Your task to perform on an android device: show emergency info Image 0: 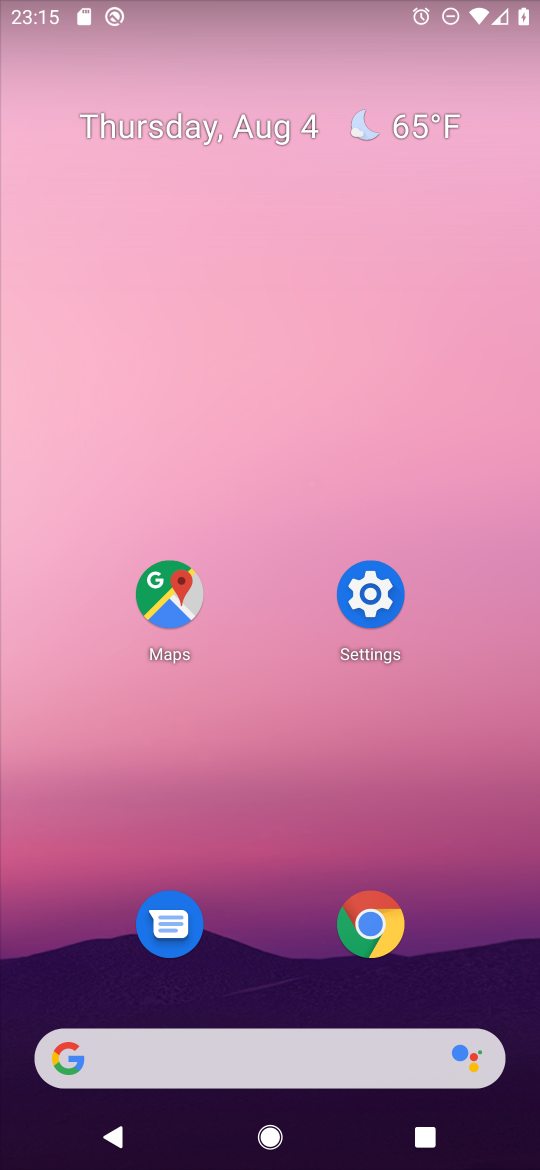
Step 0: press home button
Your task to perform on an android device: show emergency info Image 1: 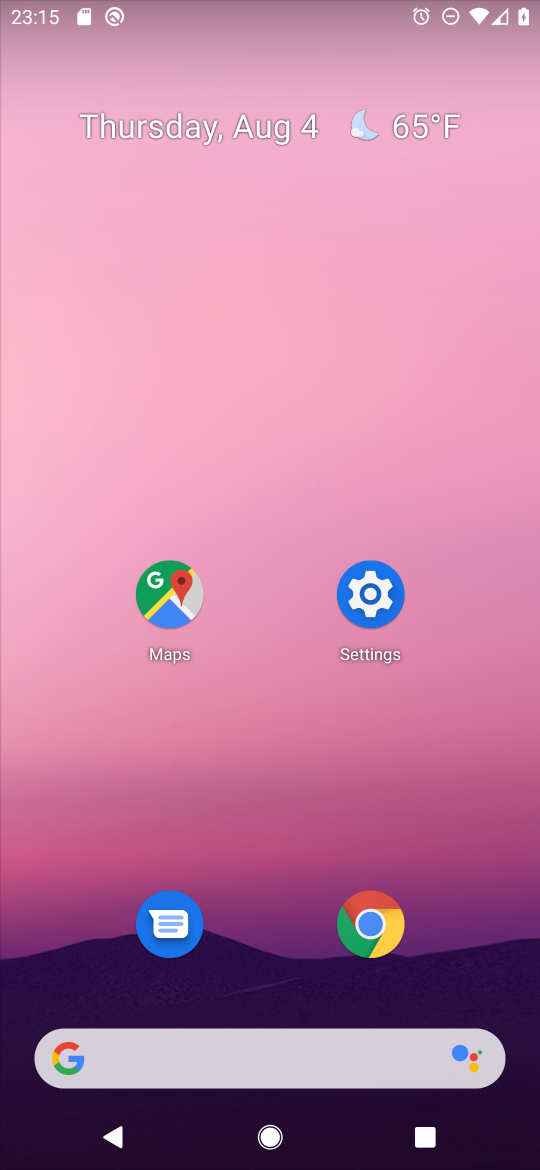
Step 1: click (373, 598)
Your task to perform on an android device: show emergency info Image 2: 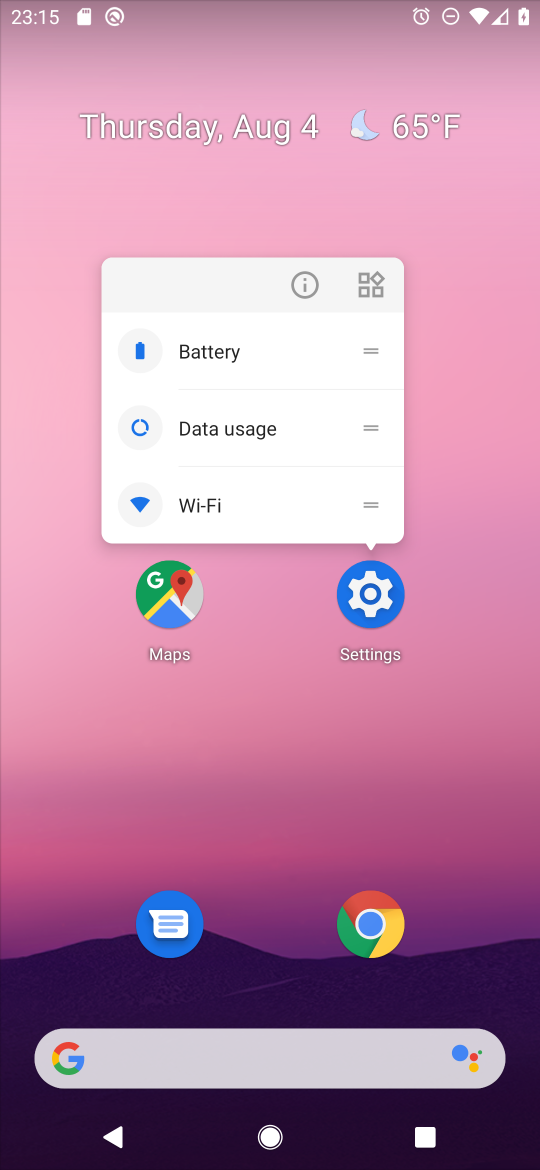
Step 2: click (373, 597)
Your task to perform on an android device: show emergency info Image 3: 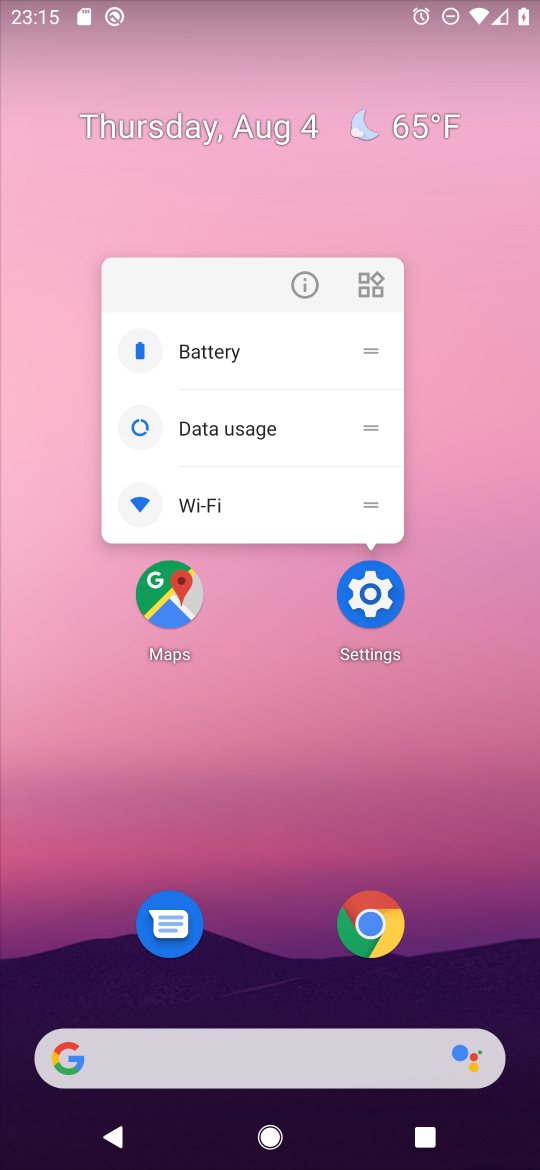
Step 3: click (373, 597)
Your task to perform on an android device: show emergency info Image 4: 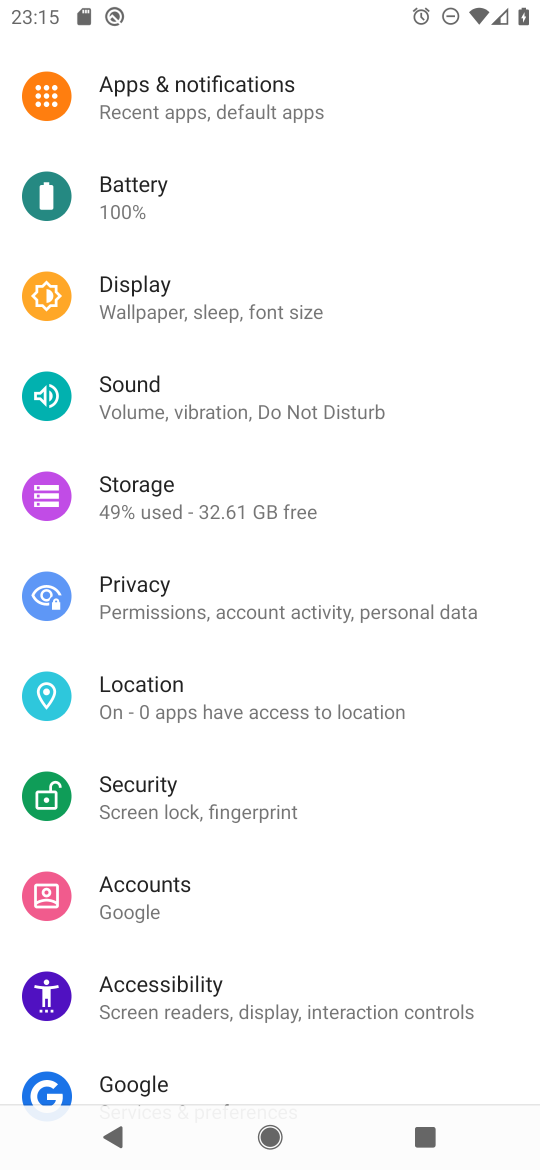
Step 4: drag from (371, 202) to (369, 1041)
Your task to perform on an android device: show emergency info Image 5: 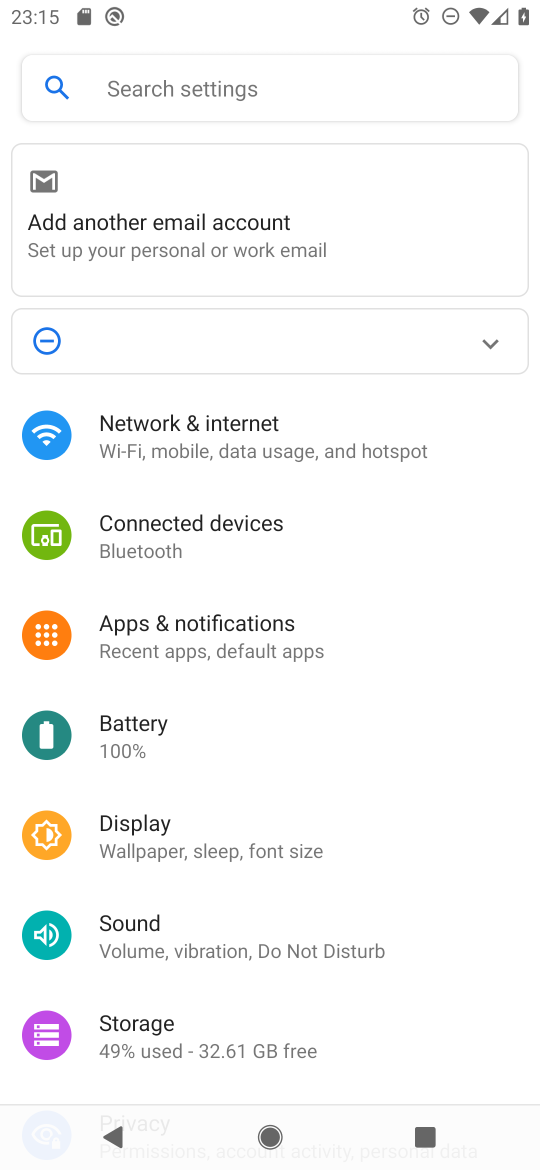
Step 5: drag from (303, 1018) to (411, 254)
Your task to perform on an android device: show emergency info Image 6: 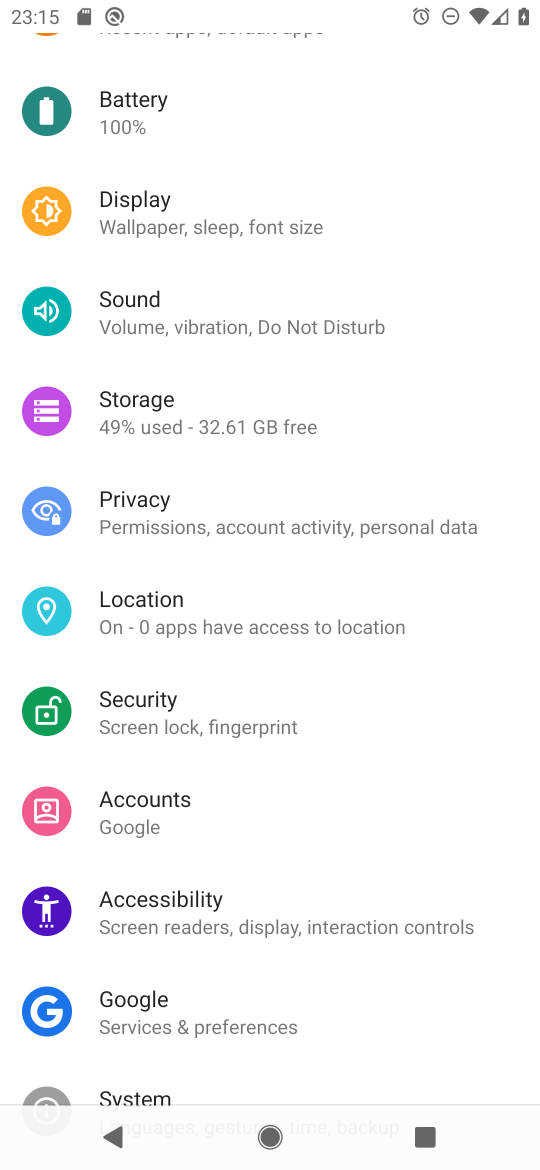
Step 6: drag from (240, 994) to (435, 286)
Your task to perform on an android device: show emergency info Image 7: 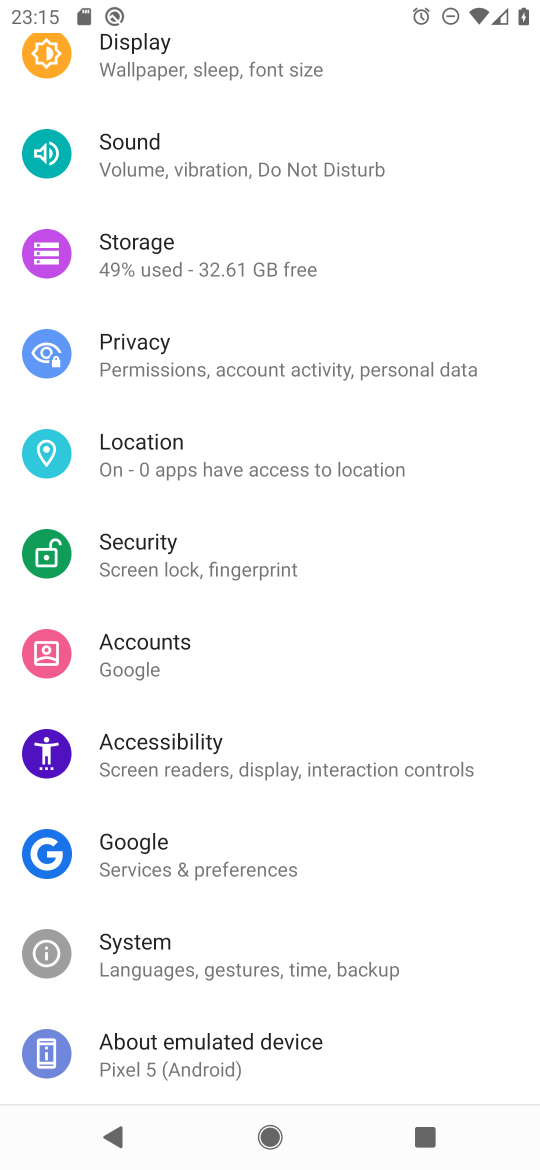
Step 7: click (249, 1049)
Your task to perform on an android device: show emergency info Image 8: 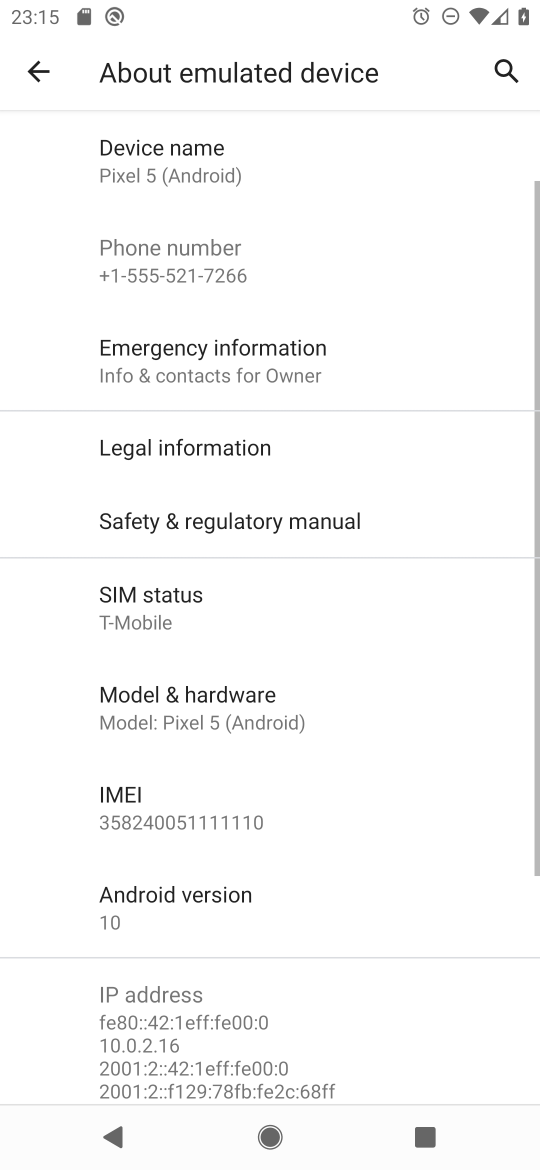
Step 8: click (305, 357)
Your task to perform on an android device: show emergency info Image 9: 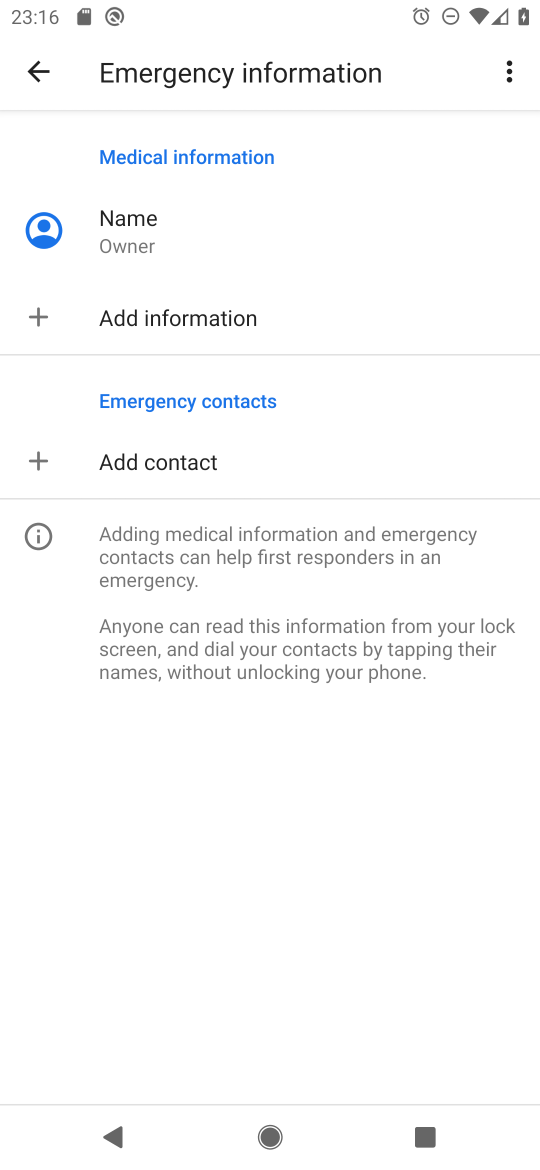
Step 9: task complete